Your task to perform on an android device: star an email in the gmail app Image 0: 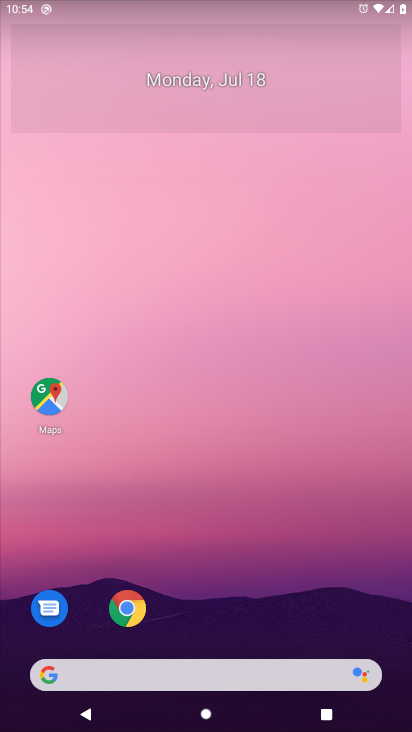
Step 0: drag from (88, 545) to (350, 9)
Your task to perform on an android device: star an email in the gmail app Image 1: 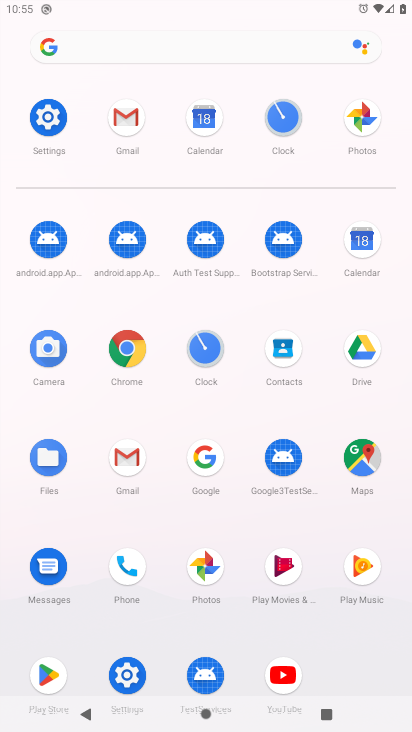
Step 1: click (131, 469)
Your task to perform on an android device: star an email in the gmail app Image 2: 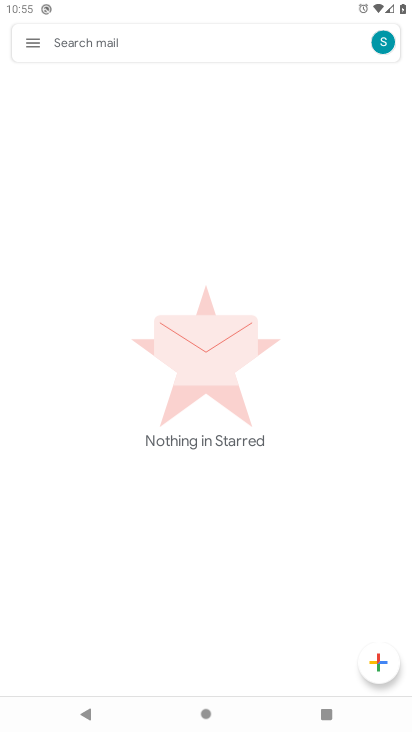
Step 2: click (30, 29)
Your task to perform on an android device: star an email in the gmail app Image 3: 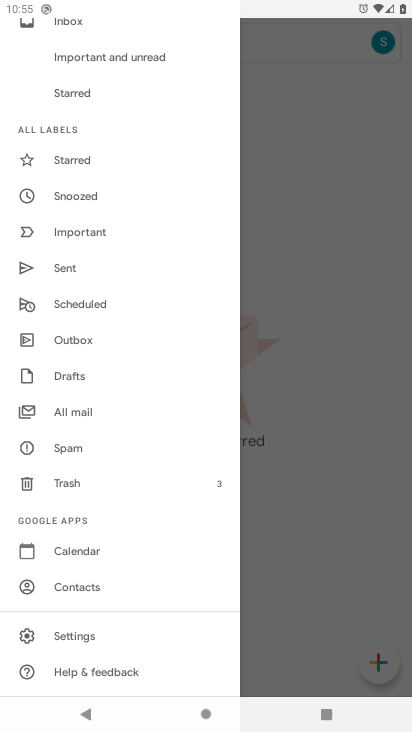
Step 3: click (80, 163)
Your task to perform on an android device: star an email in the gmail app Image 4: 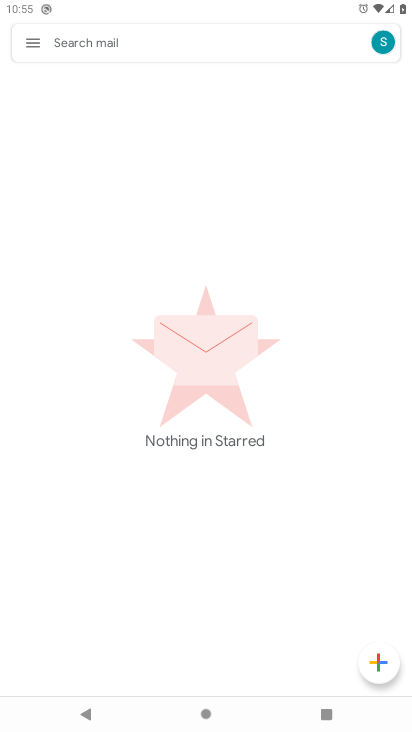
Step 4: task complete